Your task to perform on an android device: open app "LiveIn - Share Your Moment" (install if not already installed) Image 0: 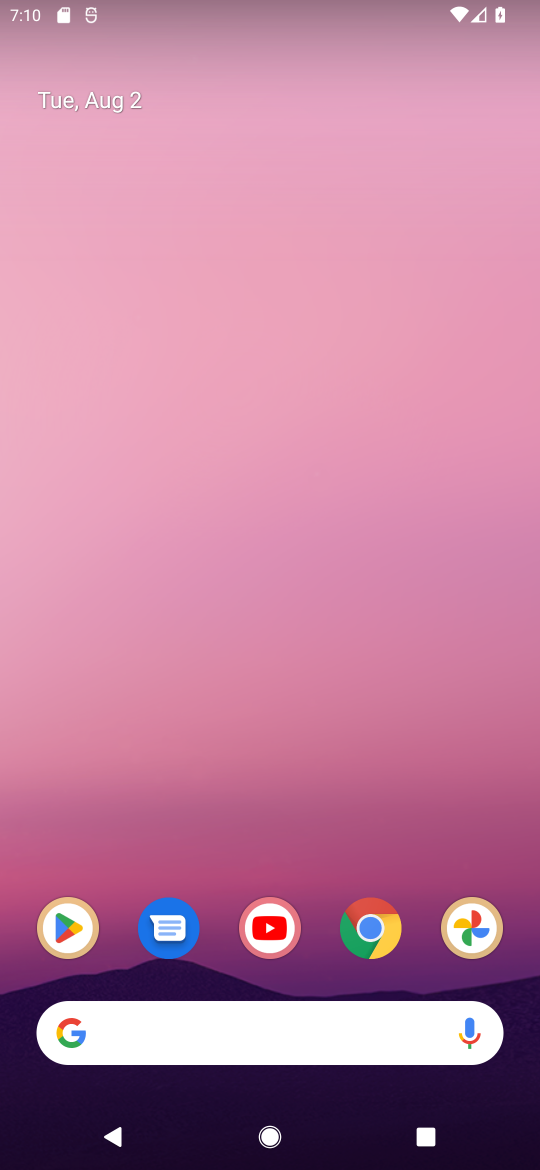
Step 0: click (65, 944)
Your task to perform on an android device: open app "LiveIn - Share Your Moment" (install if not already installed) Image 1: 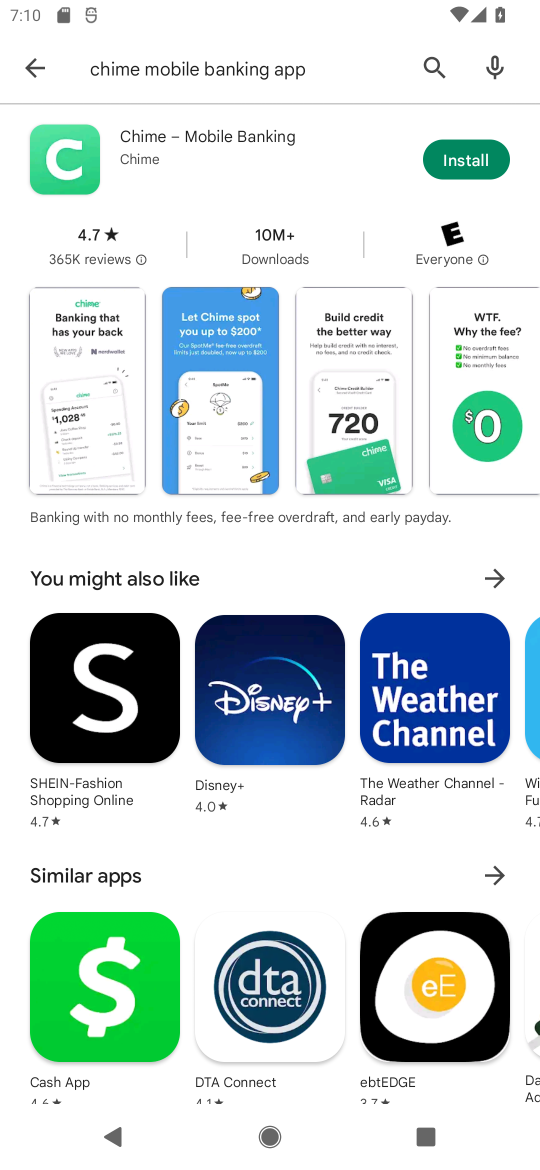
Step 1: click (431, 60)
Your task to perform on an android device: open app "LiveIn - Share Your Moment" (install if not already installed) Image 2: 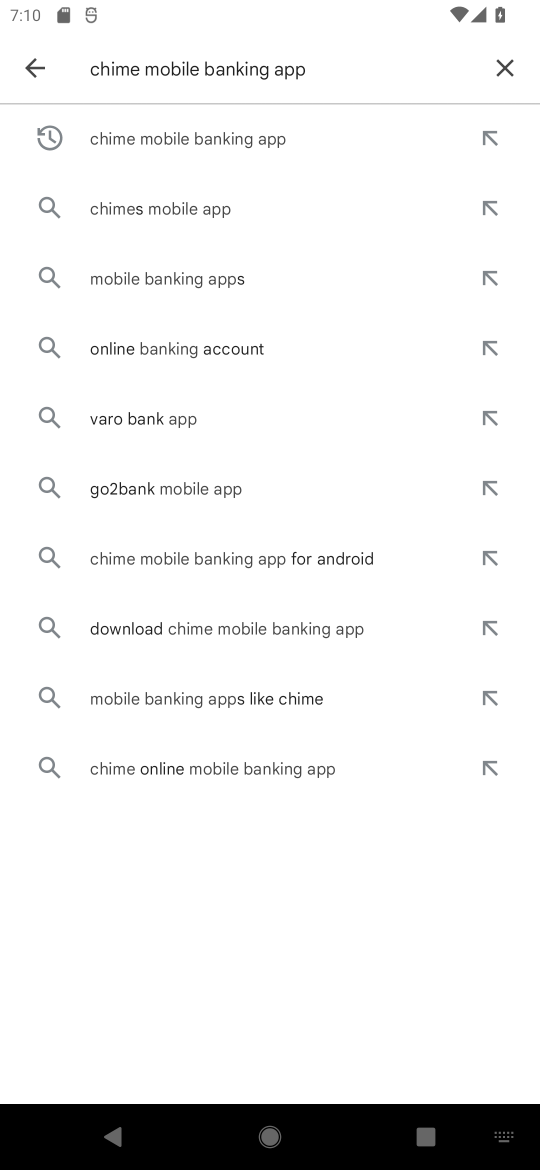
Step 2: click (507, 67)
Your task to perform on an android device: open app "LiveIn - Share Your Moment" (install if not already installed) Image 3: 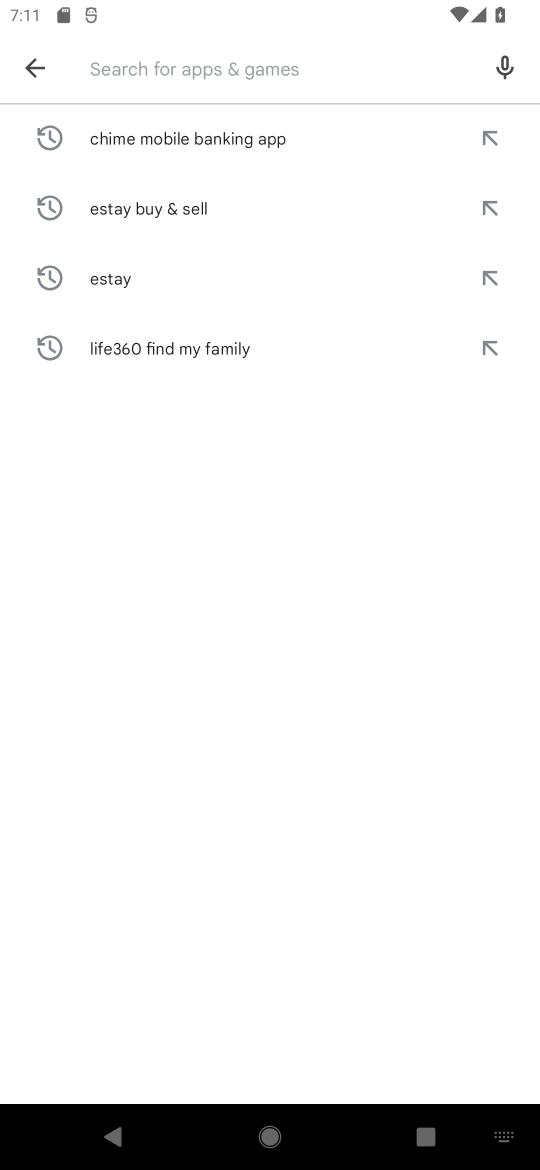
Step 3: type "LiveIn - Share Your Moment"
Your task to perform on an android device: open app "LiveIn - Share Your Moment" (install if not already installed) Image 4: 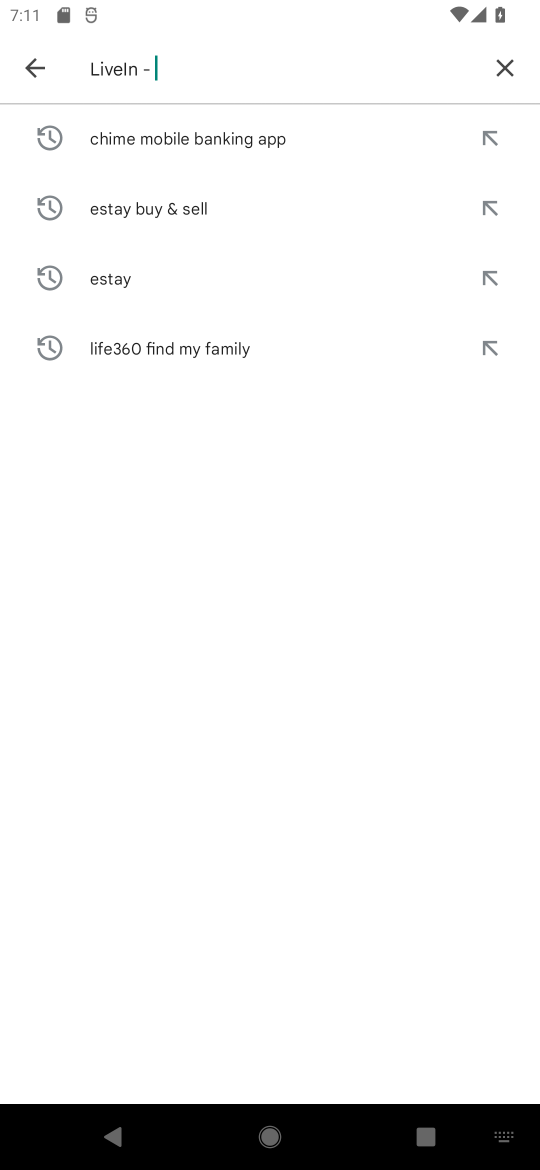
Step 4: type ""
Your task to perform on an android device: open app "LiveIn - Share Your Moment" (install if not already installed) Image 5: 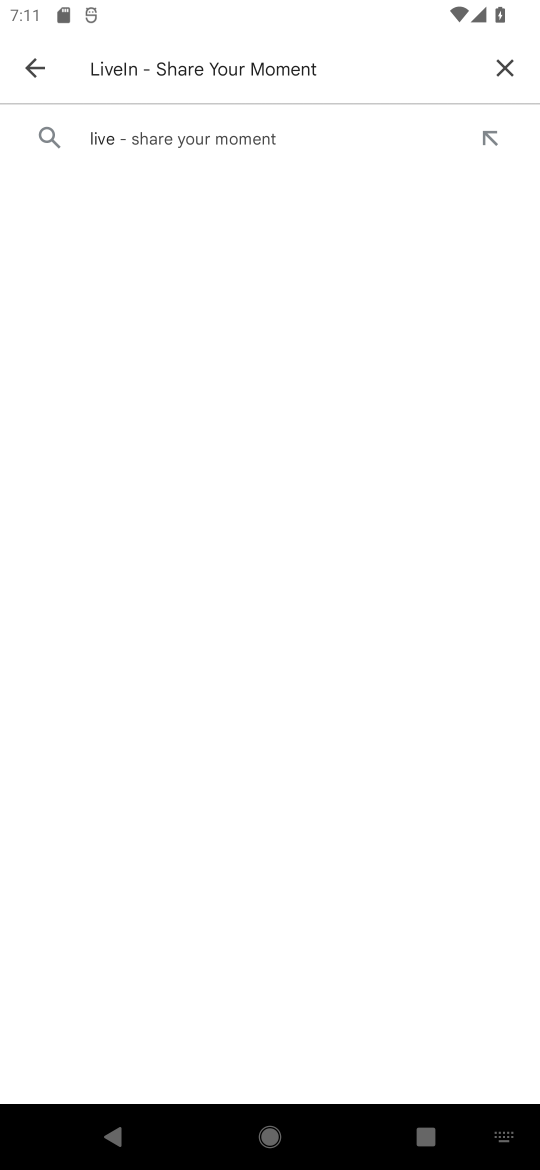
Step 5: click (171, 147)
Your task to perform on an android device: open app "LiveIn - Share Your Moment" (install if not already installed) Image 6: 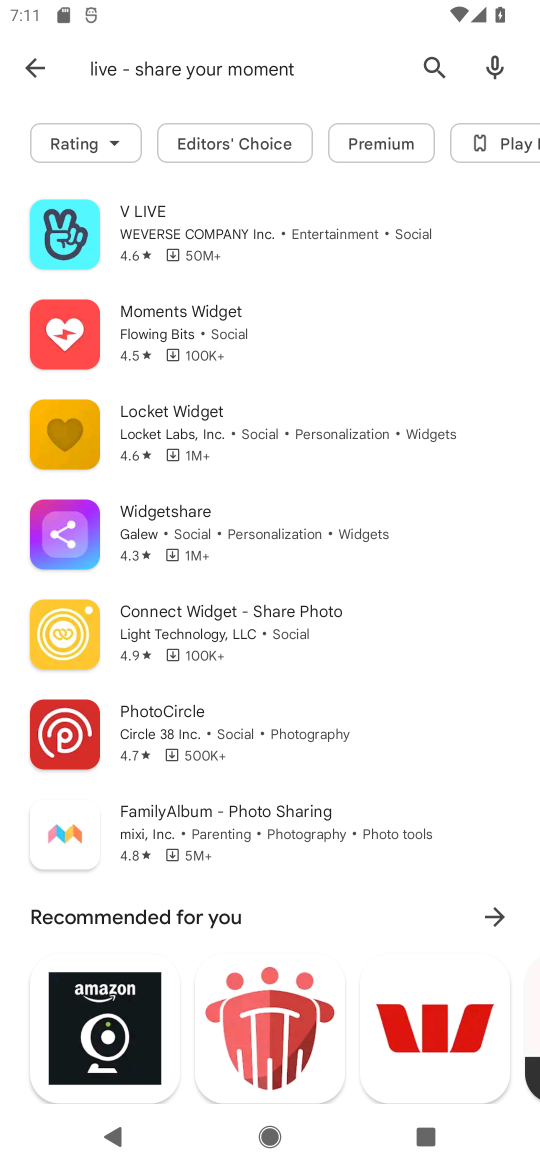
Step 6: task complete